Your task to perform on an android device: Open my contact list Image 0: 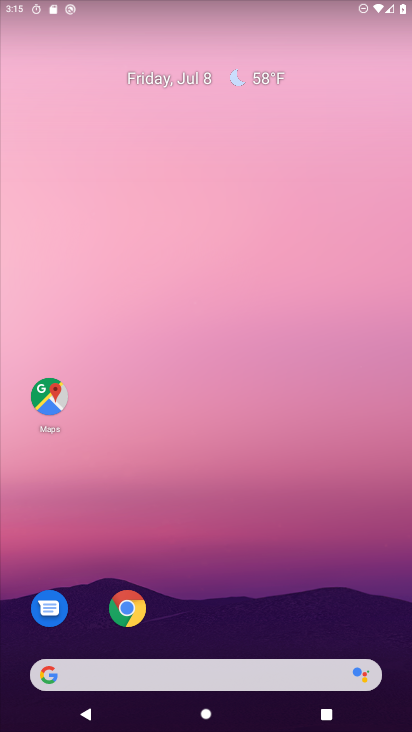
Step 0: drag from (240, 719) to (219, 81)
Your task to perform on an android device: Open my contact list Image 1: 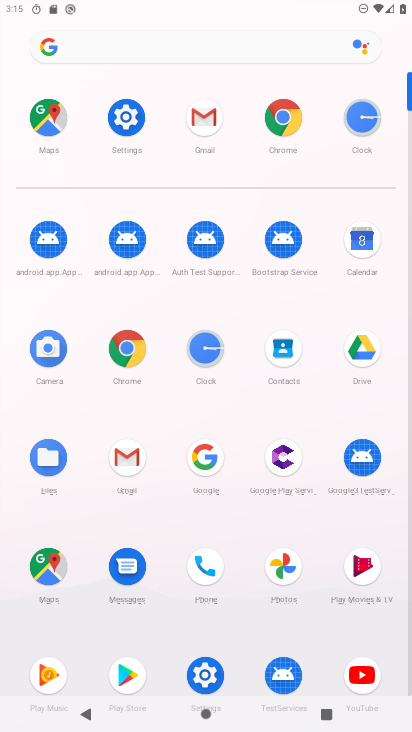
Step 1: click (279, 348)
Your task to perform on an android device: Open my contact list Image 2: 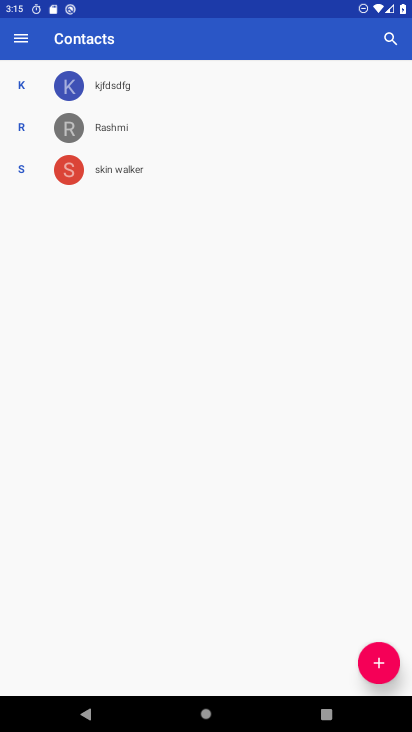
Step 2: task complete